Your task to perform on an android device: Search for vegetarian restaurants on Maps Image 0: 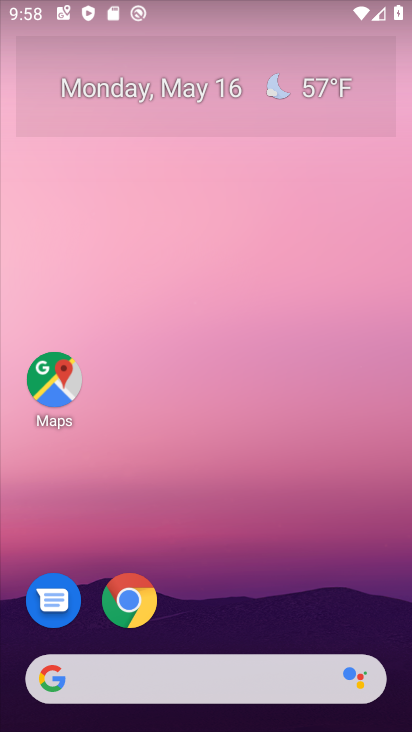
Step 0: drag from (326, 516) to (290, 132)
Your task to perform on an android device: Search for vegetarian restaurants on Maps Image 1: 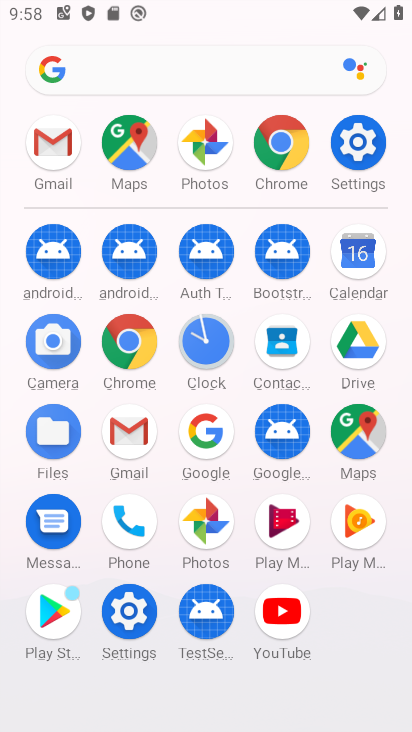
Step 1: click (359, 438)
Your task to perform on an android device: Search for vegetarian restaurants on Maps Image 2: 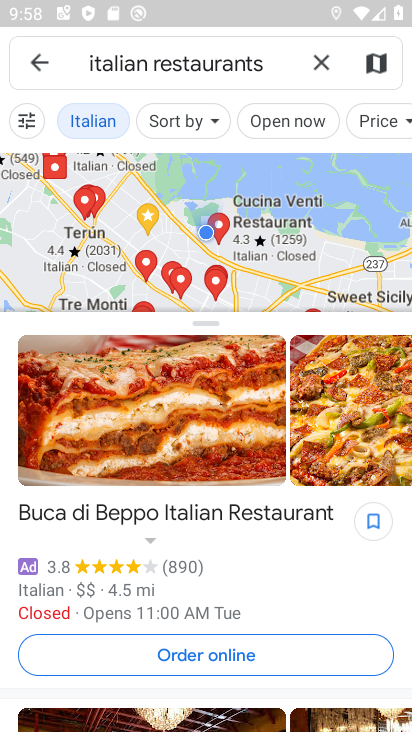
Step 2: click (325, 60)
Your task to perform on an android device: Search for vegetarian restaurants on Maps Image 3: 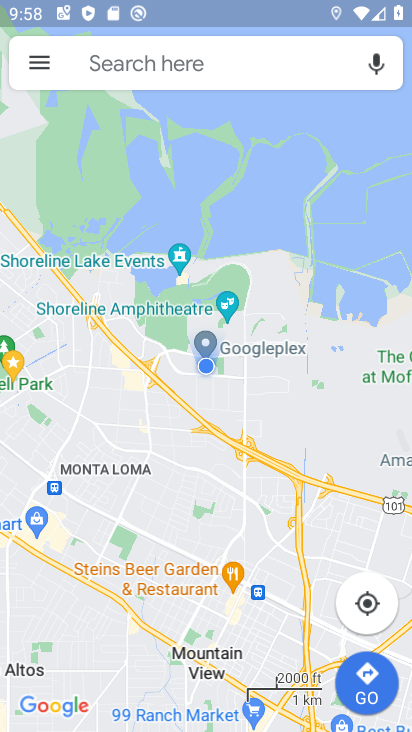
Step 3: click (185, 60)
Your task to perform on an android device: Search for vegetarian restaurants on Maps Image 4: 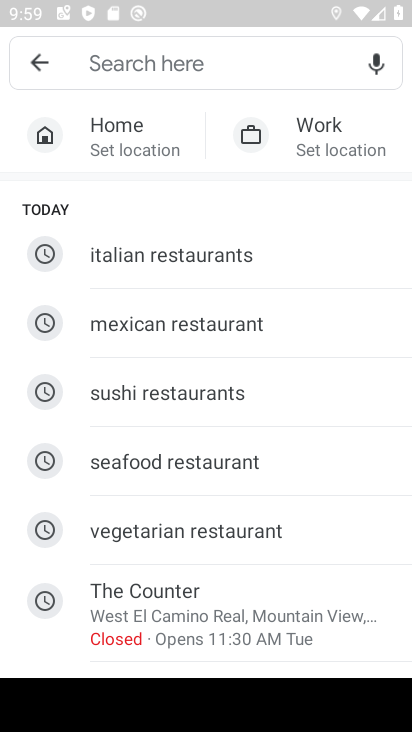
Step 4: type "vegetarian restaurants"
Your task to perform on an android device: Search for vegetarian restaurants on Maps Image 5: 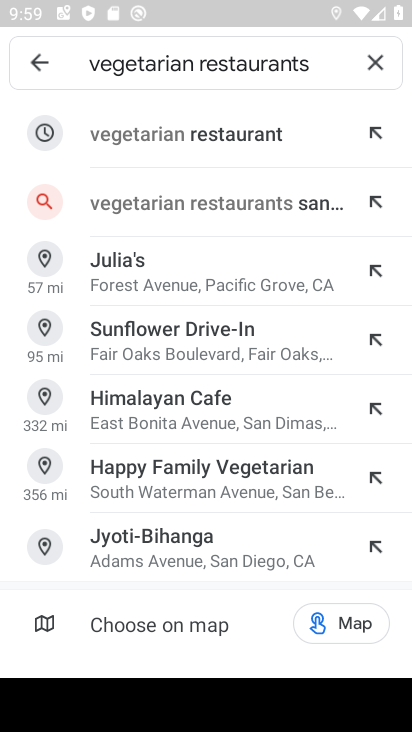
Step 5: click (181, 152)
Your task to perform on an android device: Search for vegetarian restaurants on Maps Image 6: 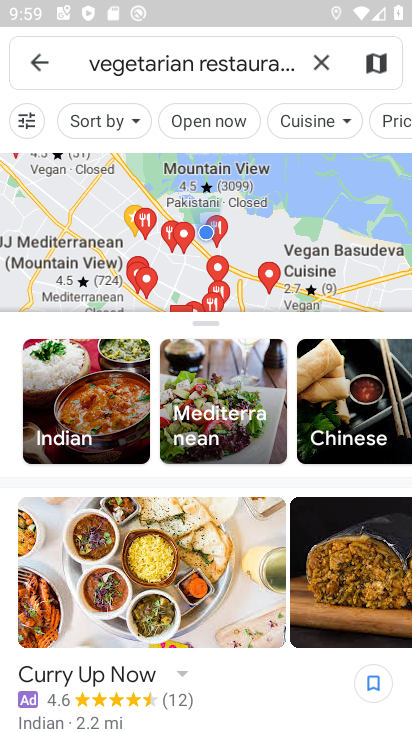
Step 6: task complete